Your task to perform on an android device: Check the news Image 0: 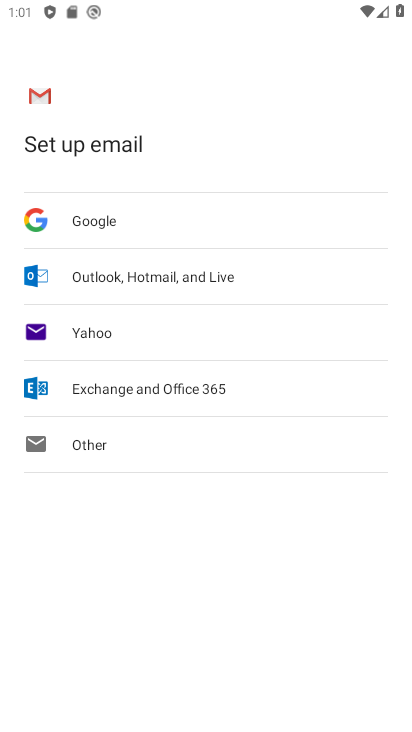
Step 0: press home button
Your task to perform on an android device: Check the news Image 1: 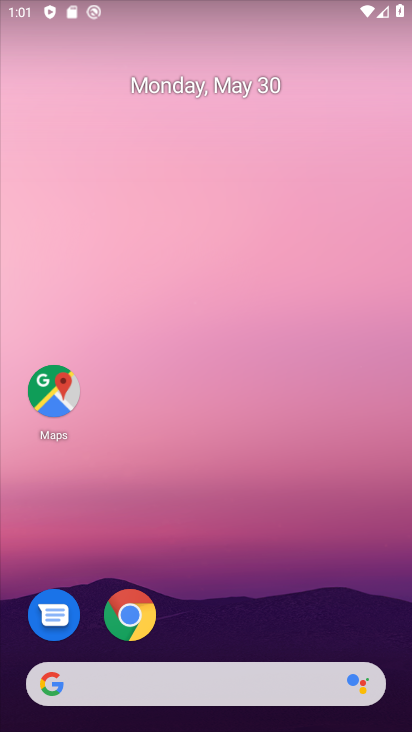
Step 1: task complete